Your task to perform on an android device: change text size in settings app Image 0: 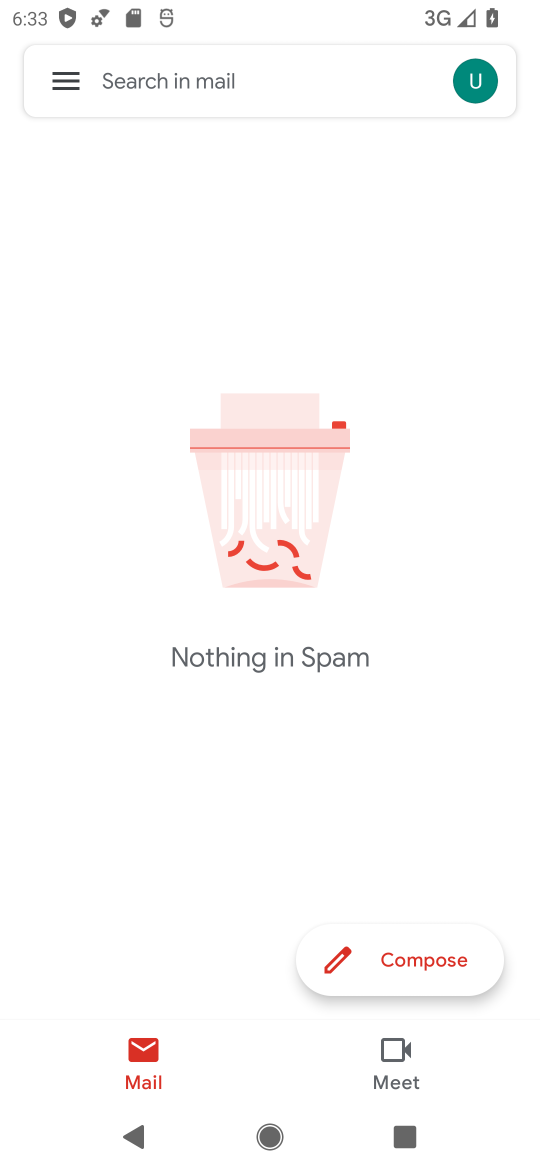
Step 0: press home button
Your task to perform on an android device: change text size in settings app Image 1: 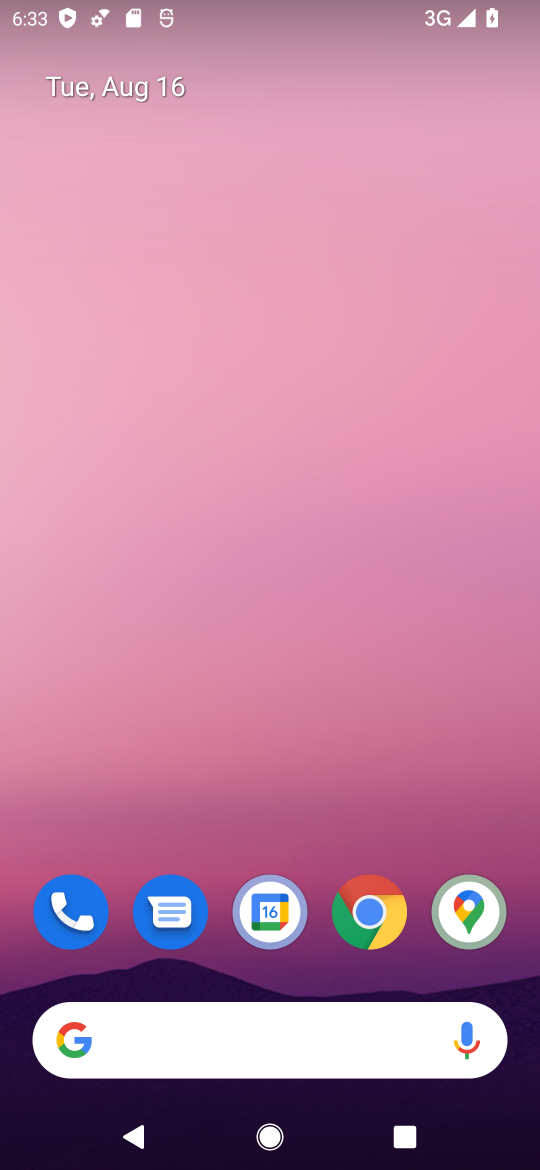
Step 1: drag from (410, 967) to (417, 158)
Your task to perform on an android device: change text size in settings app Image 2: 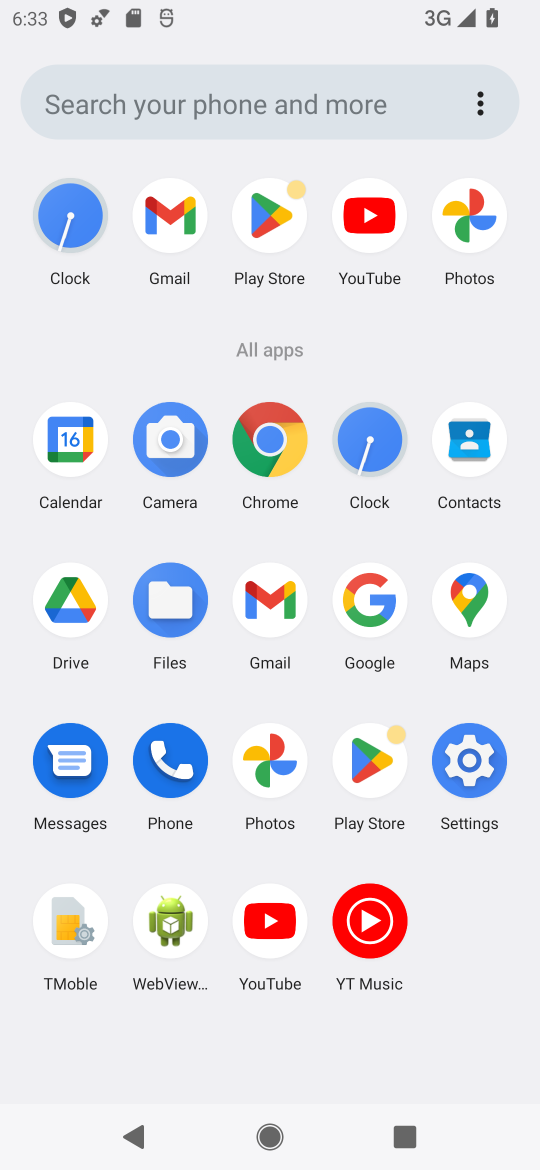
Step 2: click (474, 762)
Your task to perform on an android device: change text size in settings app Image 3: 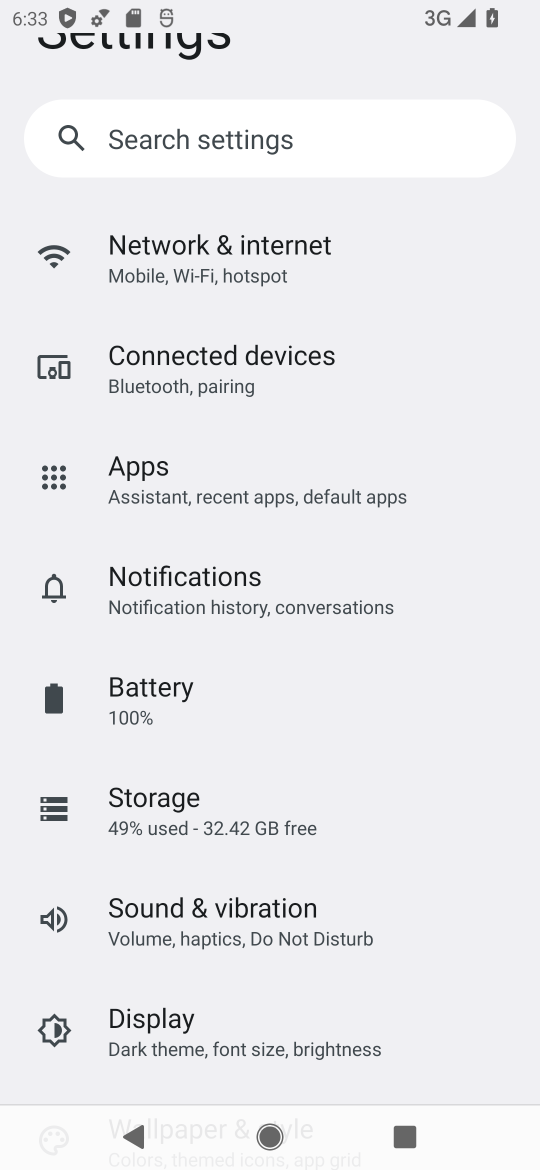
Step 3: drag from (407, 988) to (385, 736)
Your task to perform on an android device: change text size in settings app Image 4: 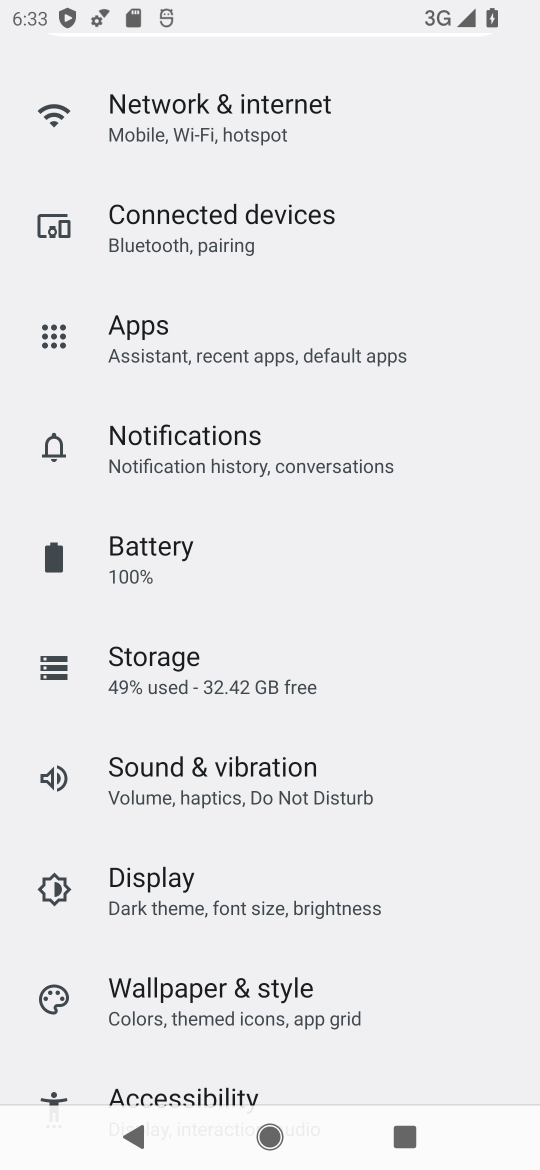
Step 4: click (170, 896)
Your task to perform on an android device: change text size in settings app Image 5: 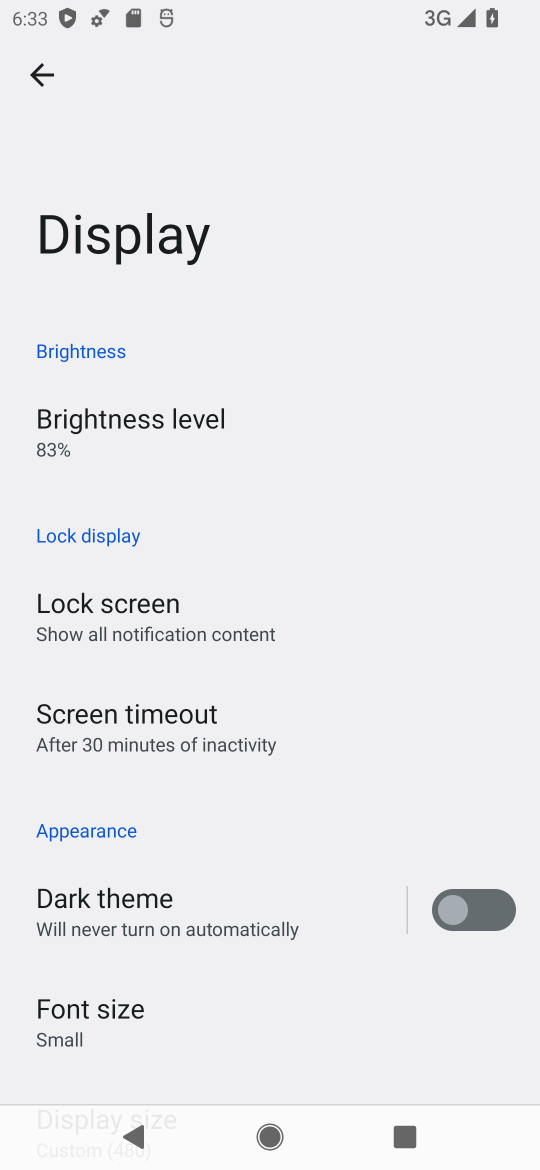
Step 5: drag from (308, 758) to (283, 240)
Your task to perform on an android device: change text size in settings app Image 6: 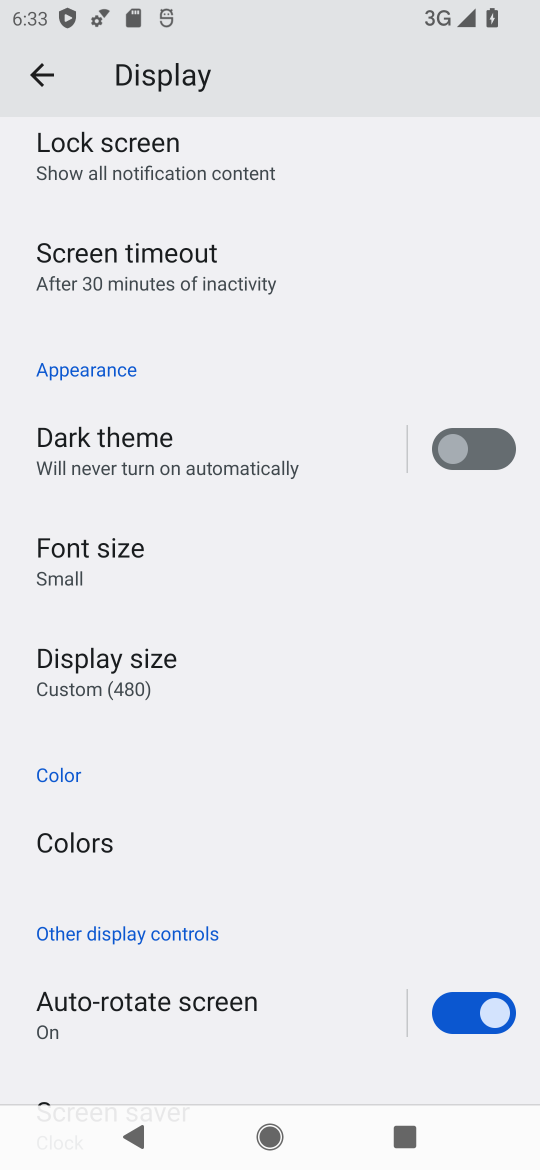
Step 6: click (66, 549)
Your task to perform on an android device: change text size in settings app Image 7: 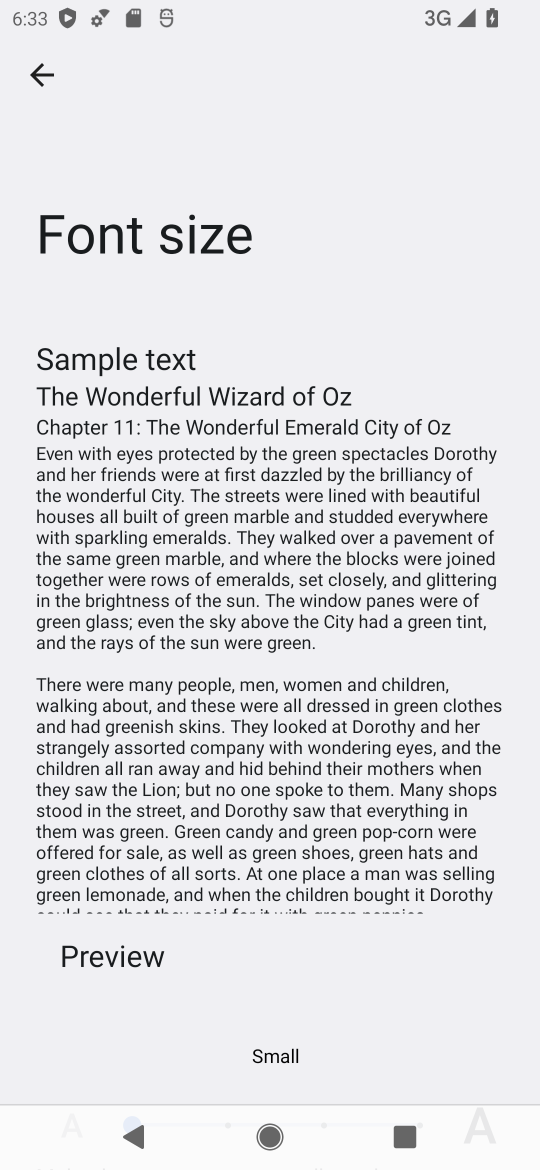
Step 7: drag from (352, 971) to (371, 373)
Your task to perform on an android device: change text size in settings app Image 8: 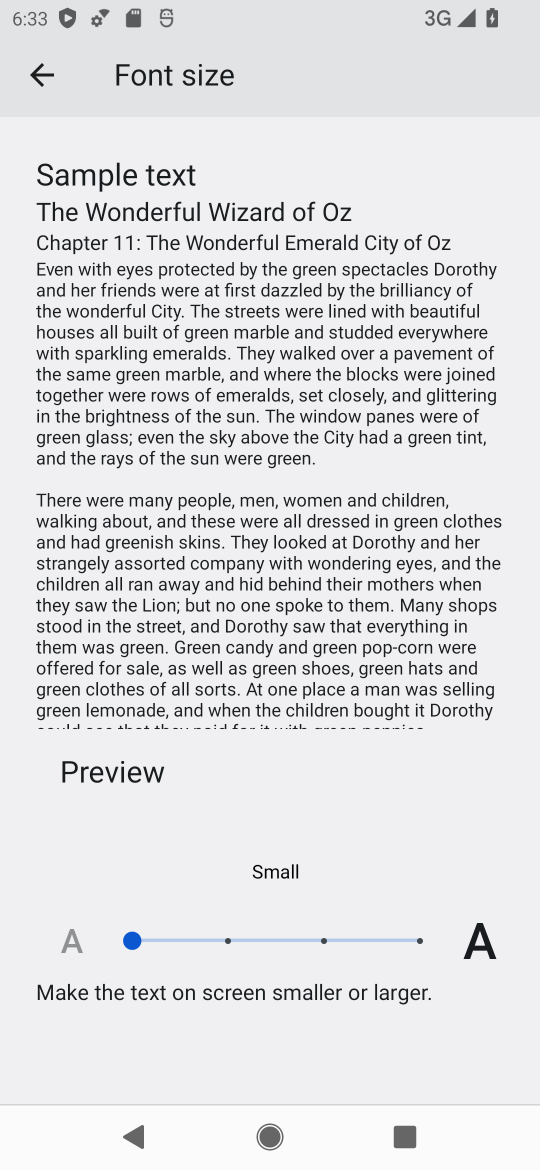
Step 8: click (324, 940)
Your task to perform on an android device: change text size in settings app Image 9: 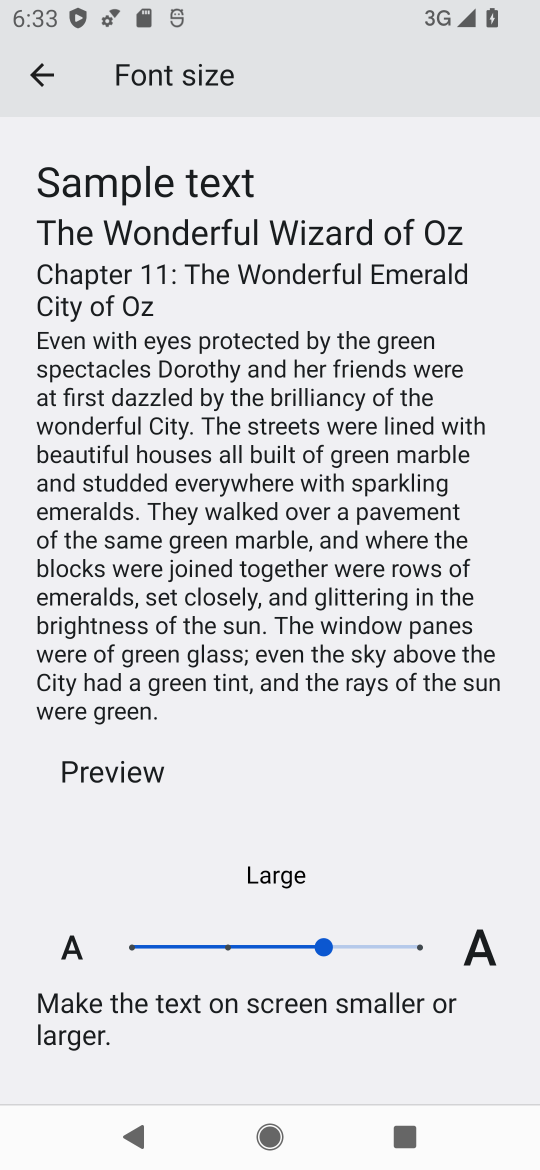
Step 9: task complete